Your task to perform on an android device: Check the news Image 0: 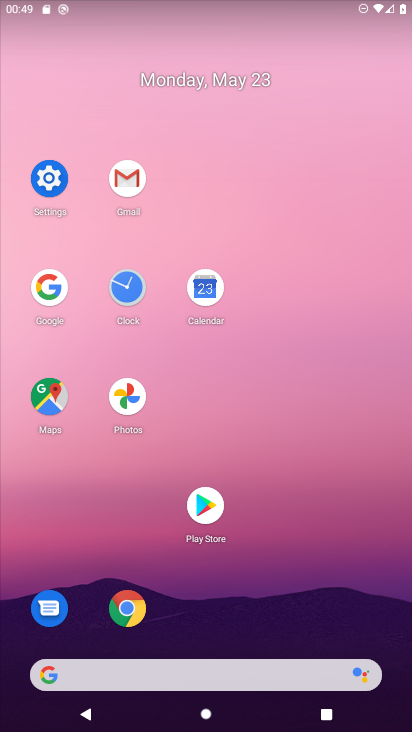
Step 0: click (64, 295)
Your task to perform on an android device: Check the news Image 1: 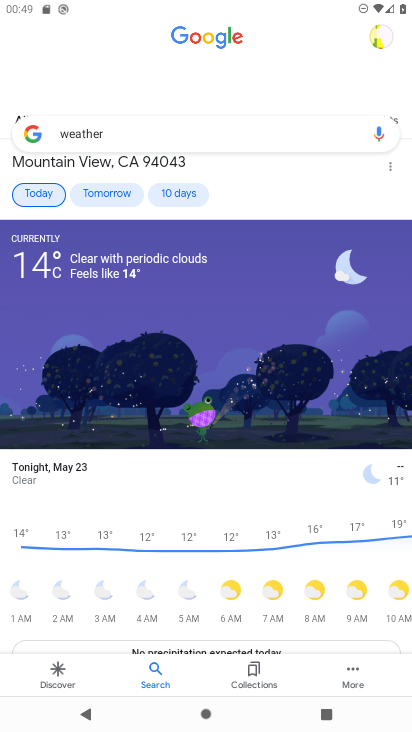
Step 1: click (250, 113)
Your task to perform on an android device: Check the news Image 2: 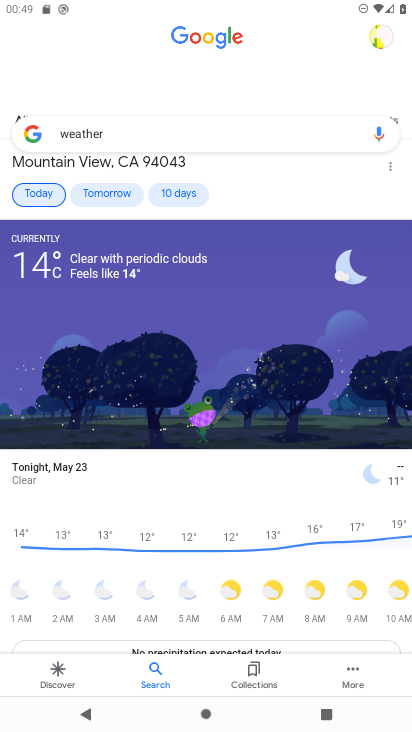
Step 2: click (258, 126)
Your task to perform on an android device: Check the news Image 3: 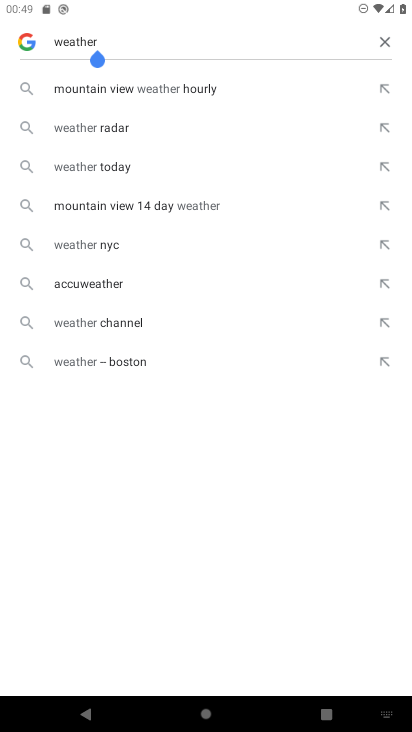
Step 3: click (388, 35)
Your task to perform on an android device: Check the news Image 4: 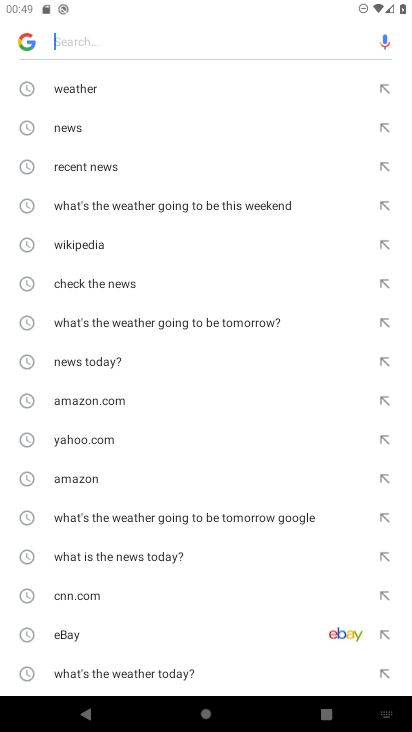
Step 4: click (95, 136)
Your task to perform on an android device: Check the news Image 5: 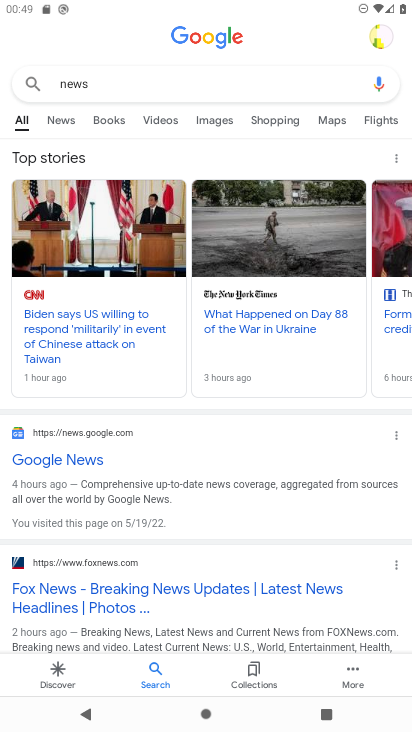
Step 5: task complete